Your task to perform on an android device: Go to privacy settings Image 0: 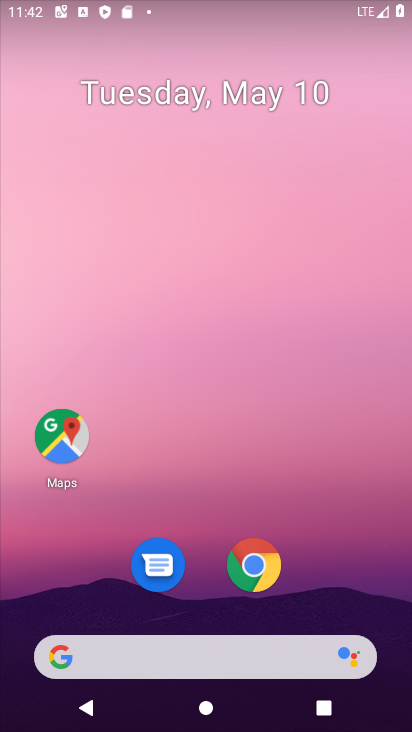
Step 0: drag from (17, 601) to (239, 114)
Your task to perform on an android device: Go to privacy settings Image 1: 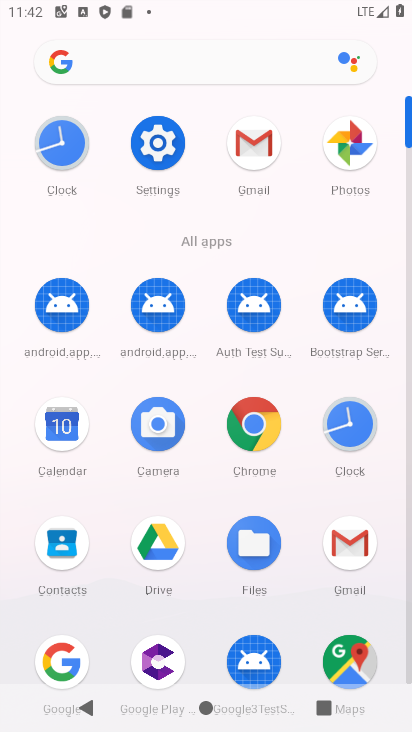
Step 1: click (147, 161)
Your task to perform on an android device: Go to privacy settings Image 2: 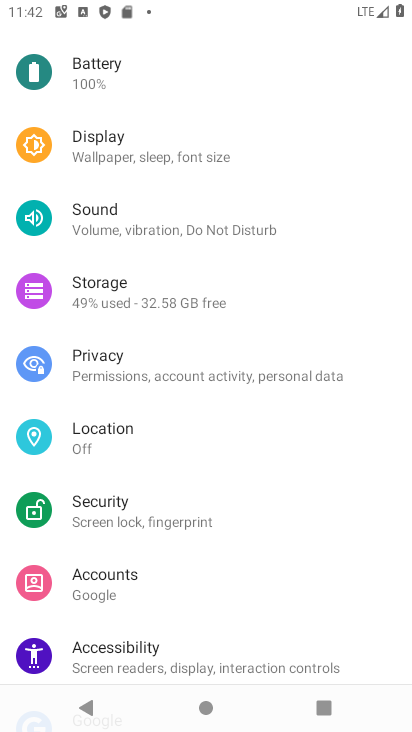
Step 2: click (116, 368)
Your task to perform on an android device: Go to privacy settings Image 3: 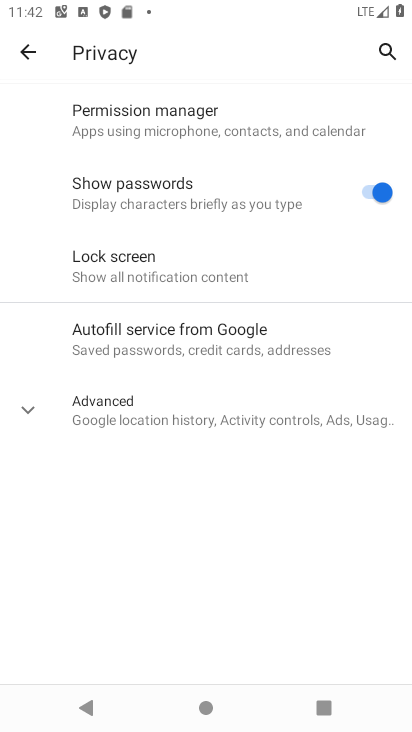
Step 3: task complete